Your task to perform on an android device: delete a single message in the gmail app Image 0: 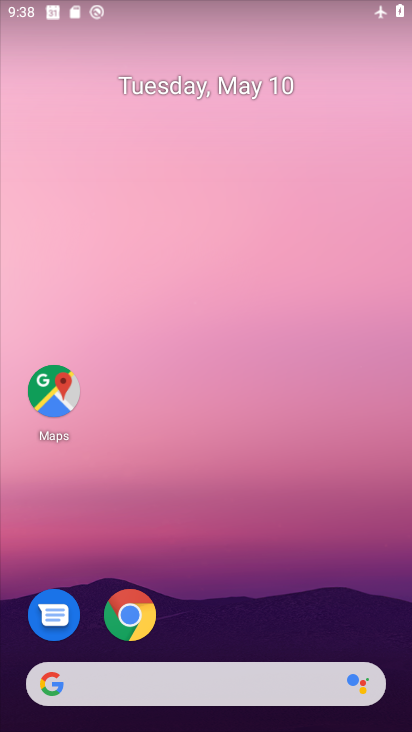
Step 0: drag from (182, 633) to (213, 23)
Your task to perform on an android device: delete a single message in the gmail app Image 1: 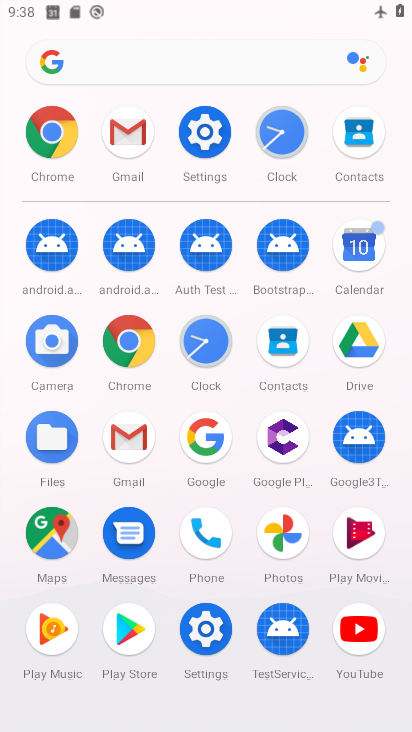
Step 1: click (108, 427)
Your task to perform on an android device: delete a single message in the gmail app Image 2: 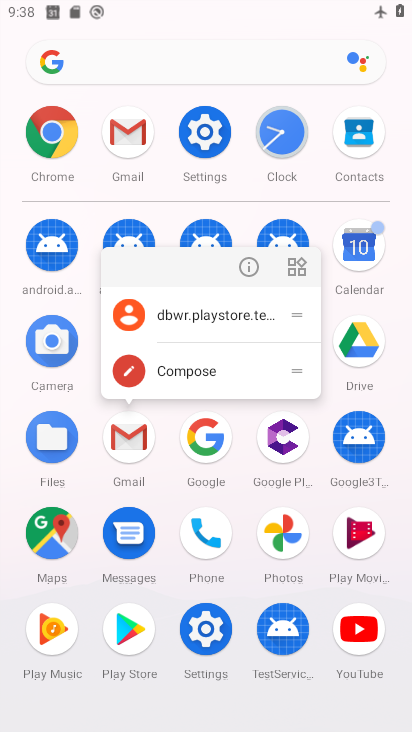
Step 2: click (240, 270)
Your task to perform on an android device: delete a single message in the gmail app Image 3: 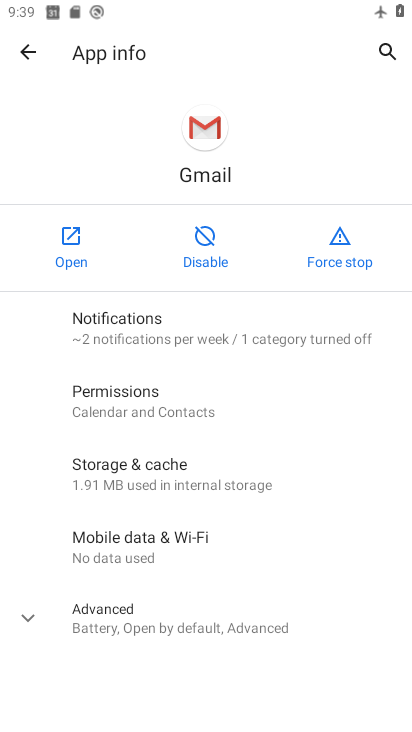
Step 3: click (210, 256)
Your task to perform on an android device: delete a single message in the gmail app Image 4: 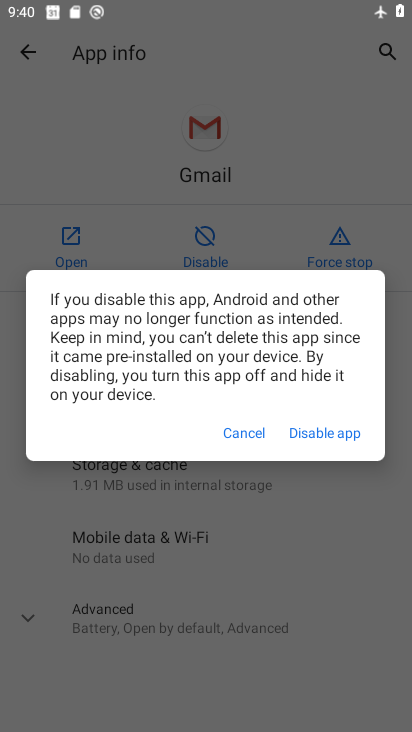
Step 4: click (207, 290)
Your task to perform on an android device: delete a single message in the gmail app Image 5: 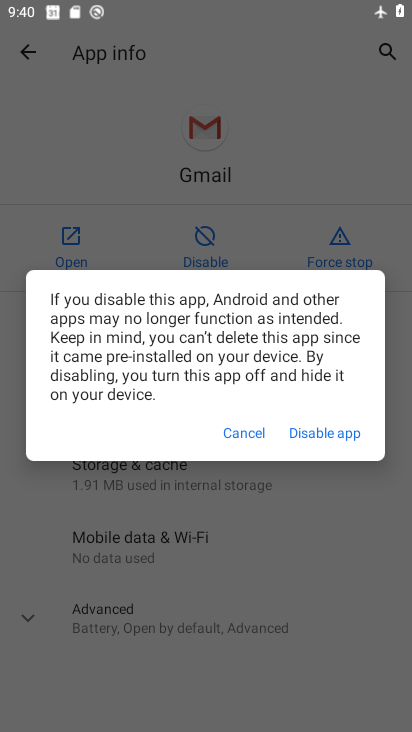
Step 5: press home button
Your task to perform on an android device: delete a single message in the gmail app Image 6: 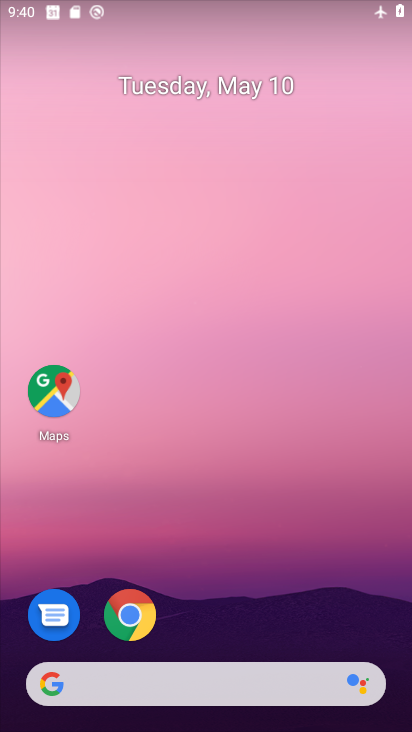
Step 6: drag from (214, 601) to (298, 231)
Your task to perform on an android device: delete a single message in the gmail app Image 7: 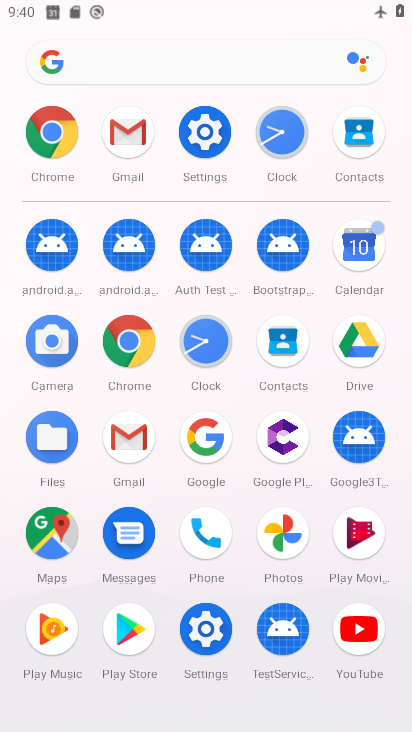
Step 7: click (106, 443)
Your task to perform on an android device: delete a single message in the gmail app Image 8: 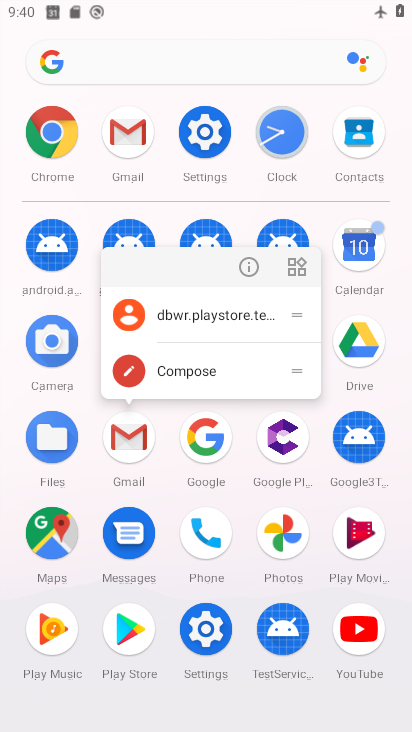
Step 8: click (251, 265)
Your task to perform on an android device: delete a single message in the gmail app Image 9: 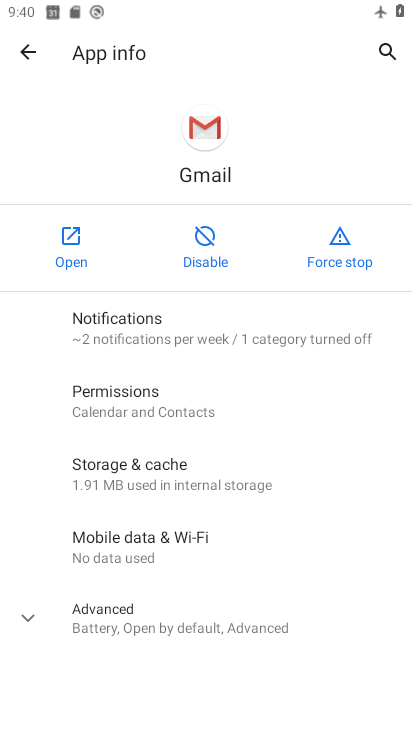
Step 9: click (79, 271)
Your task to perform on an android device: delete a single message in the gmail app Image 10: 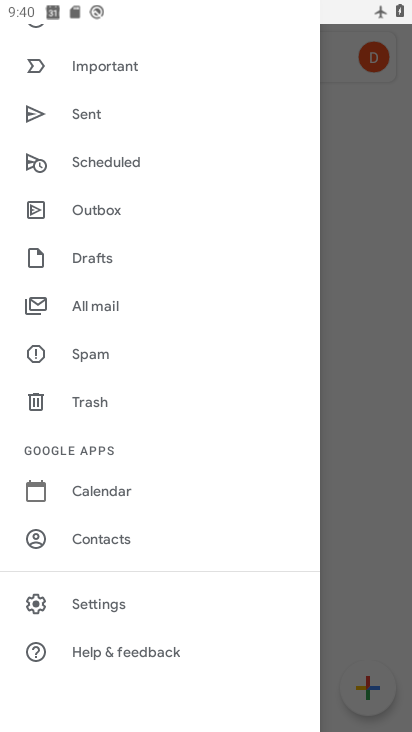
Step 10: click (342, 263)
Your task to perform on an android device: delete a single message in the gmail app Image 11: 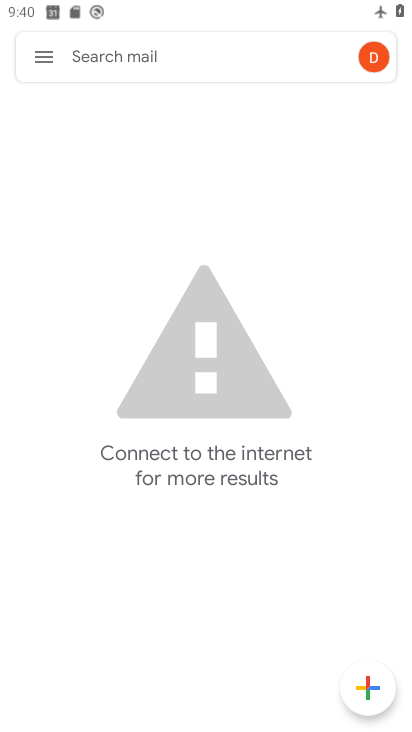
Step 11: task complete